Your task to perform on an android device: add a label to a message in the gmail app Image 0: 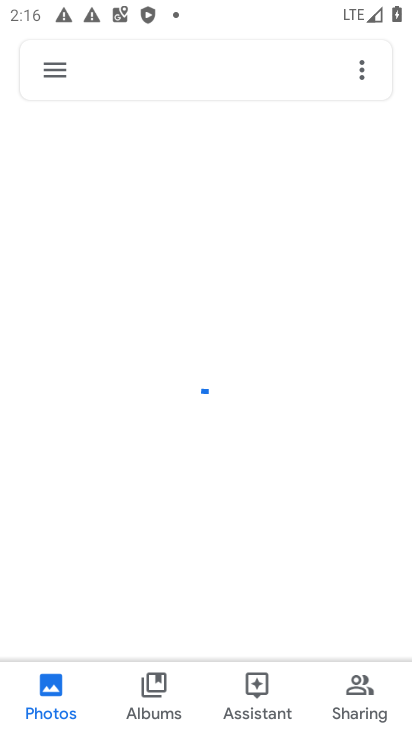
Step 0: press back button
Your task to perform on an android device: add a label to a message in the gmail app Image 1: 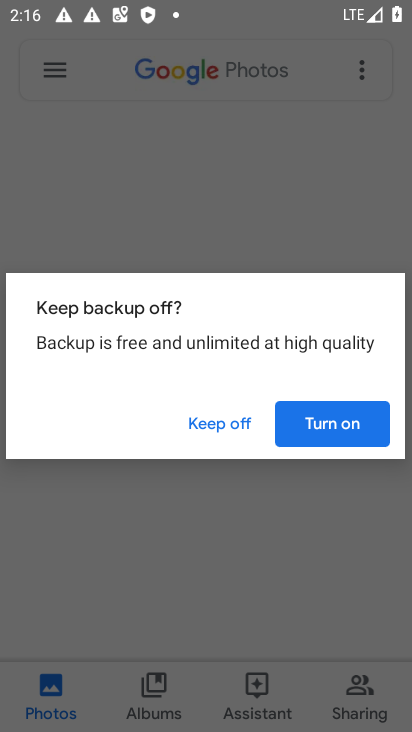
Step 1: press back button
Your task to perform on an android device: add a label to a message in the gmail app Image 2: 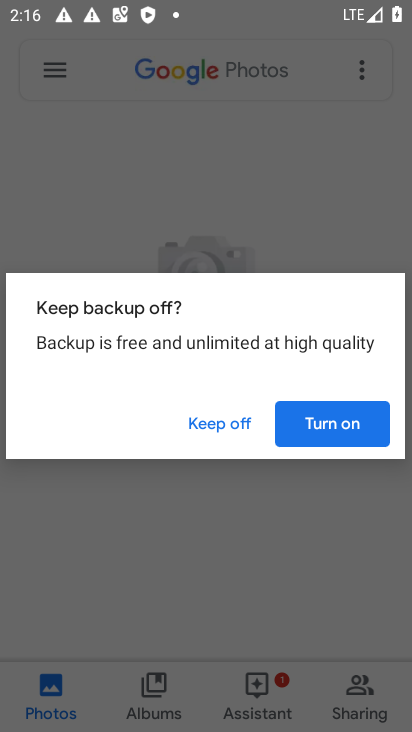
Step 2: press home button
Your task to perform on an android device: add a label to a message in the gmail app Image 3: 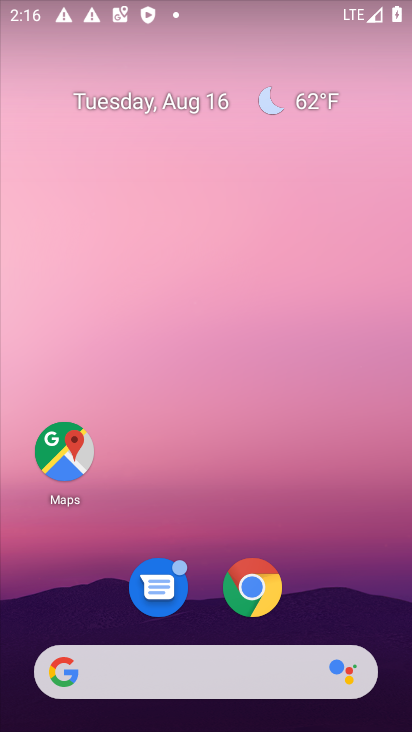
Step 3: drag from (199, 617) to (309, 2)
Your task to perform on an android device: add a label to a message in the gmail app Image 4: 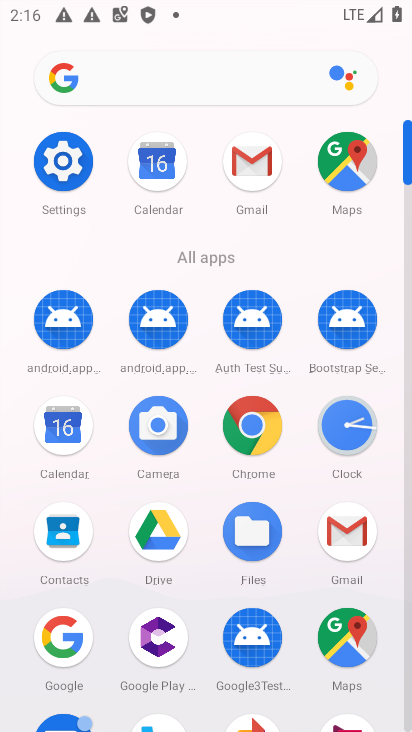
Step 4: click (248, 160)
Your task to perform on an android device: add a label to a message in the gmail app Image 5: 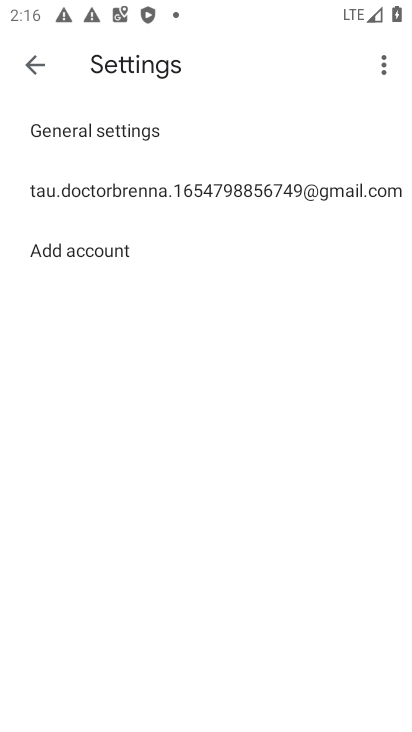
Step 5: press back button
Your task to perform on an android device: add a label to a message in the gmail app Image 6: 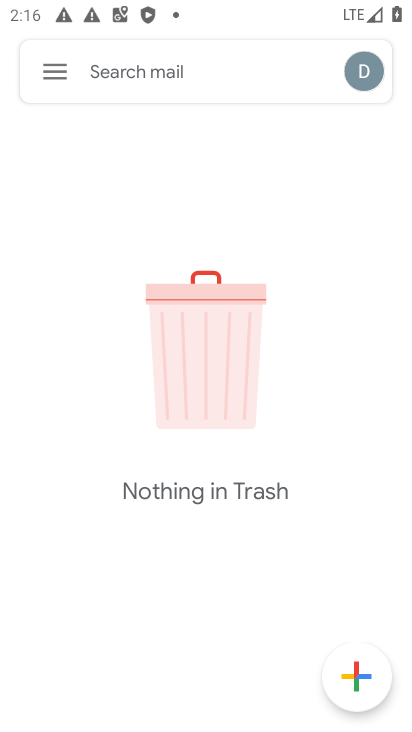
Step 6: click (50, 70)
Your task to perform on an android device: add a label to a message in the gmail app Image 7: 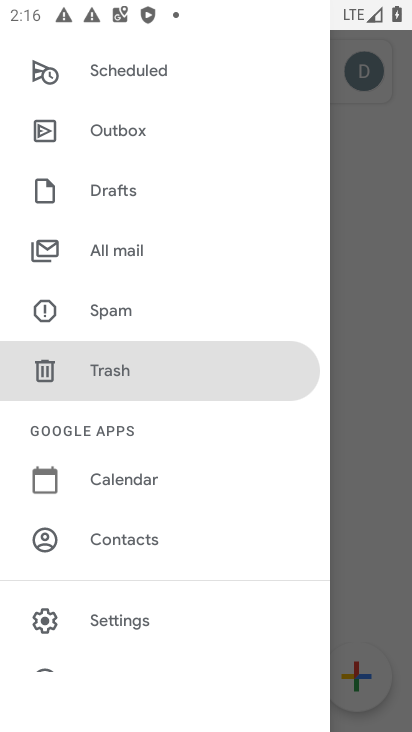
Step 7: click (106, 257)
Your task to perform on an android device: add a label to a message in the gmail app Image 8: 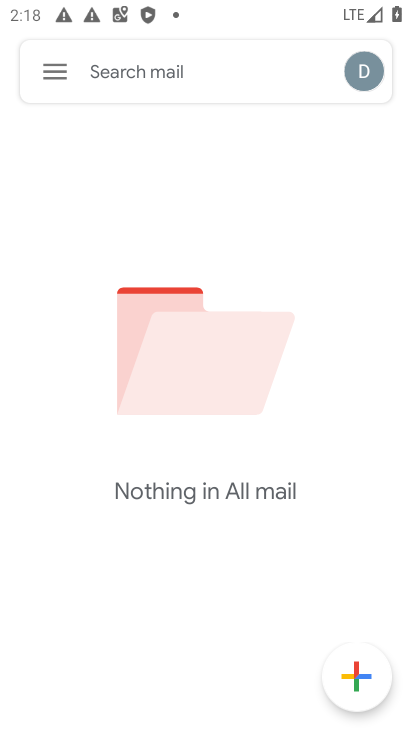
Step 8: task complete